Your task to perform on an android device: Open CNN.com Image 0: 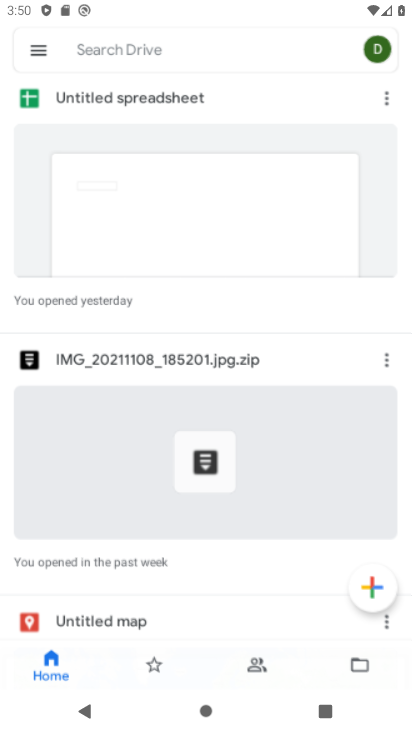
Step 0: drag from (188, 621) to (230, 166)
Your task to perform on an android device: Open CNN.com Image 1: 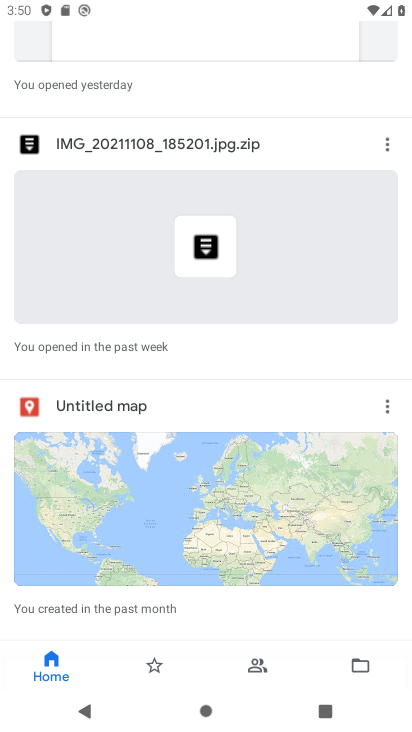
Step 1: press home button
Your task to perform on an android device: Open CNN.com Image 2: 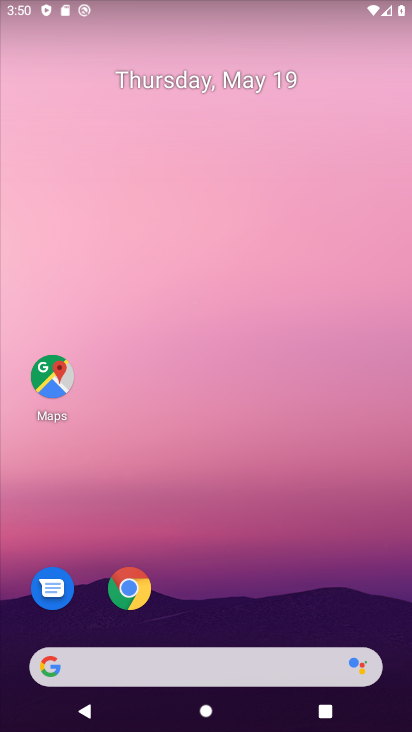
Step 2: click (129, 581)
Your task to perform on an android device: Open CNN.com Image 3: 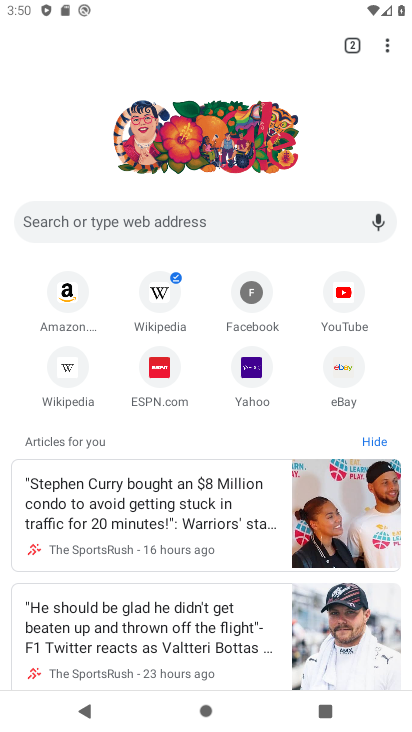
Step 3: click (188, 227)
Your task to perform on an android device: Open CNN.com Image 4: 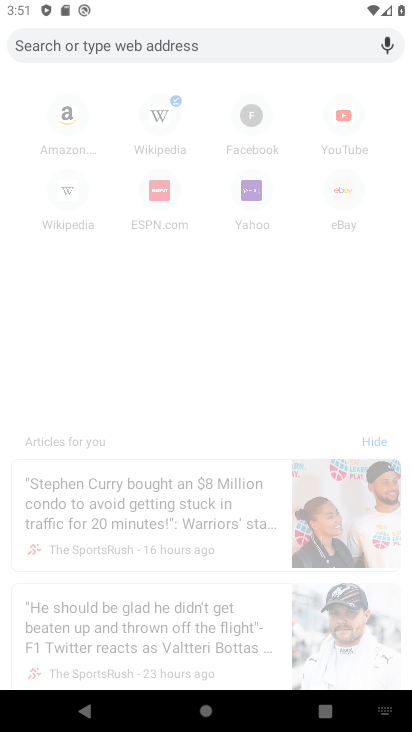
Step 4: type "CNN.com"
Your task to perform on an android device: Open CNN.com Image 5: 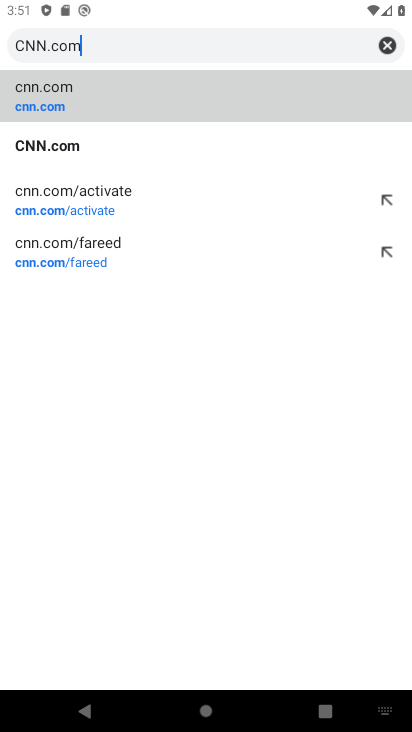
Step 5: click (76, 137)
Your task to perform on an android device: Open CNN.com Image 6: 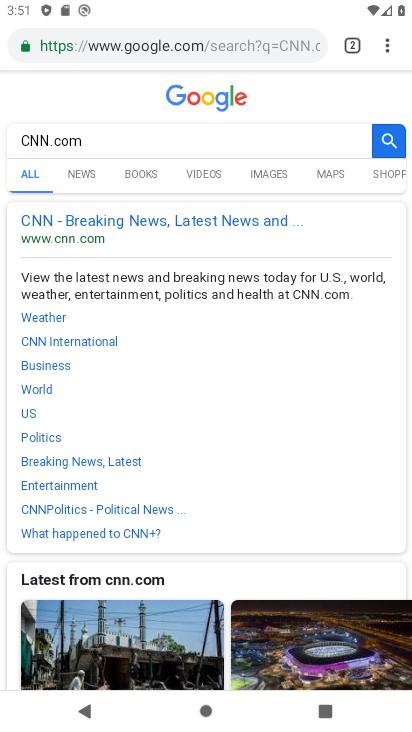
Step 6: task complete